Your task to perform on an android device: toggle data saver in the chrome app Image 0: 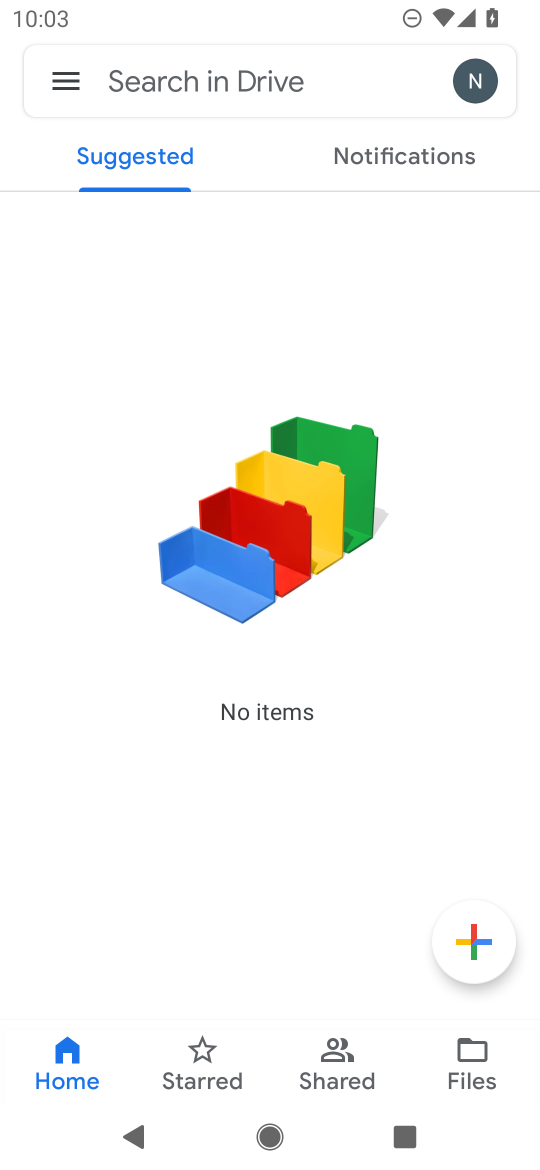
Step 0: press home button
Your task to perform on an android device: toggle data saver in the chrome app Image 1: 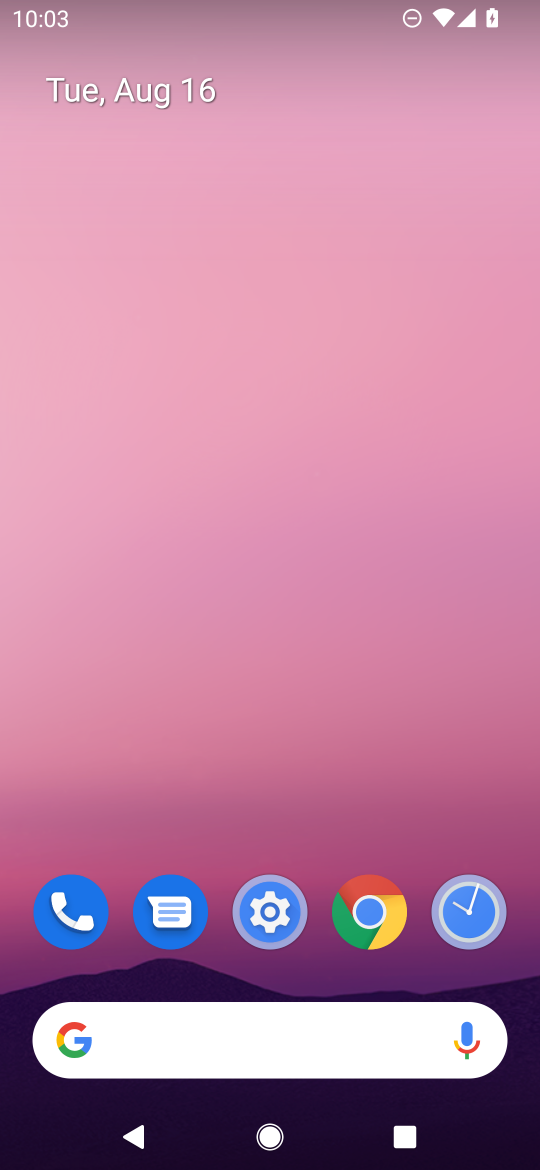
Step 1: click (390, 908)
Your task to perform on an android device: toggle data saver in the chrome app Image 2: 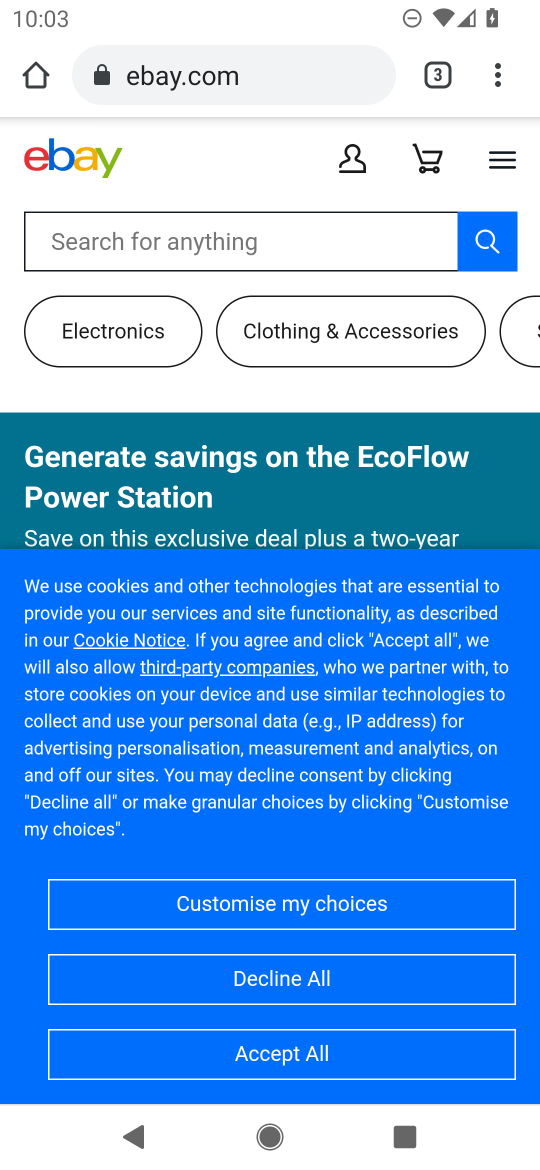
Step 2: click (506, 74)
Your task to perform on an android device: toggle data saver in the chrome app Image 3: 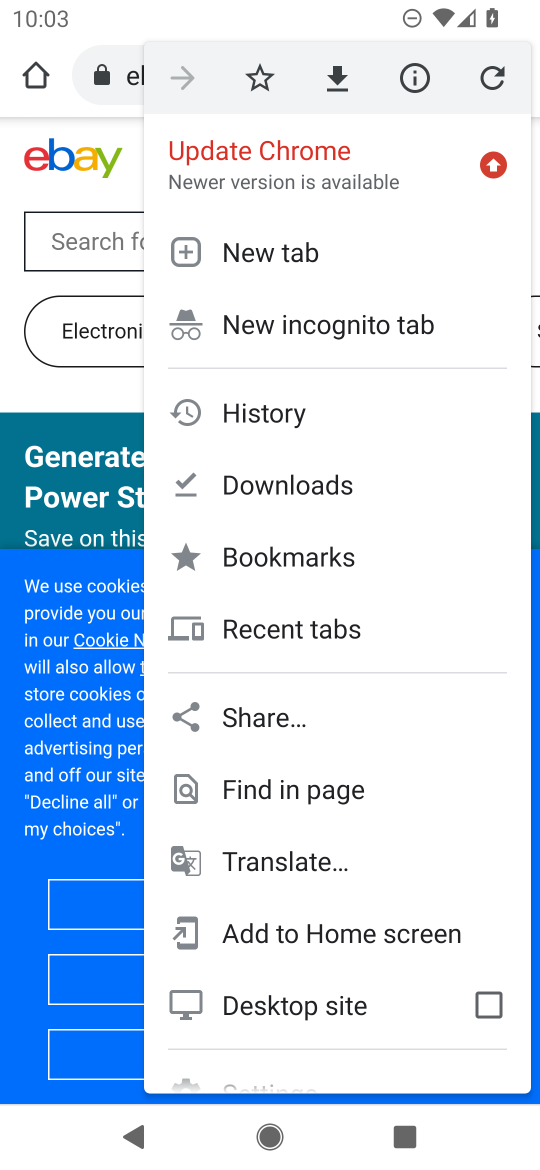
Step 3: drag from (334, 1032) to (314, 403)
Your task to perform on an android device: toggle data saver in the chrome app Image 4: 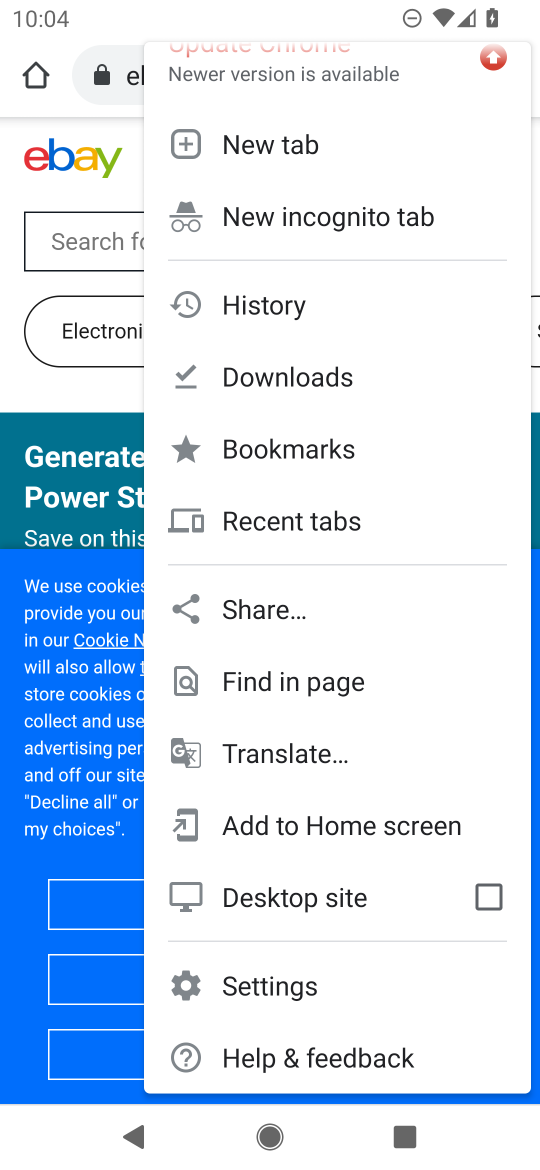
Step 4: click (244, 980)
Your task to perform on an android device: toggle data saver in the chrome app Image 5: 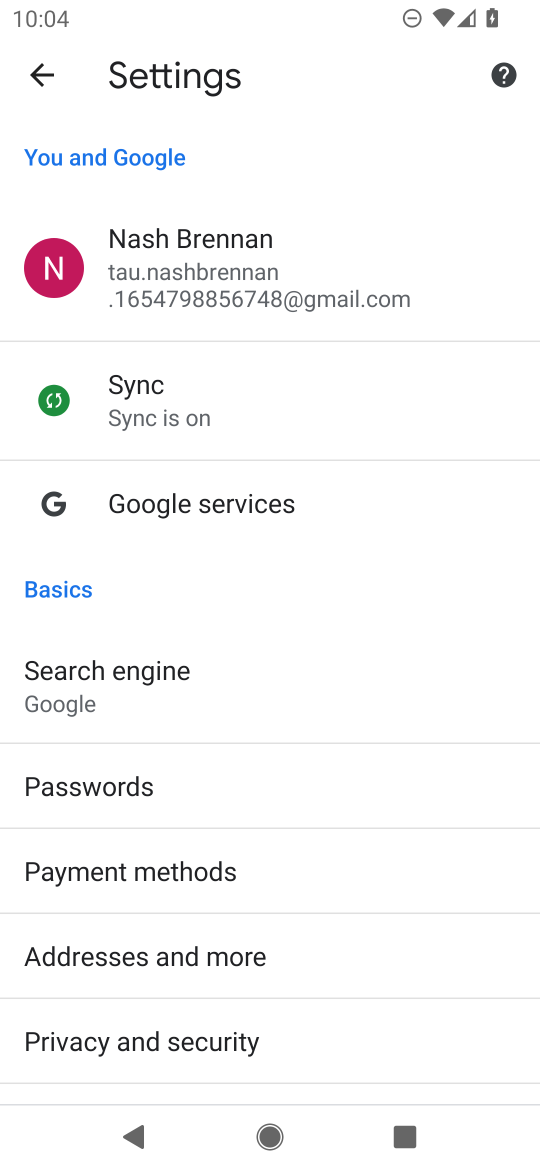
Step 5: drag from (86, 1061) to (103, 323)
Your task to perform on an android device: toggle data saver in the chrome app Image 6: 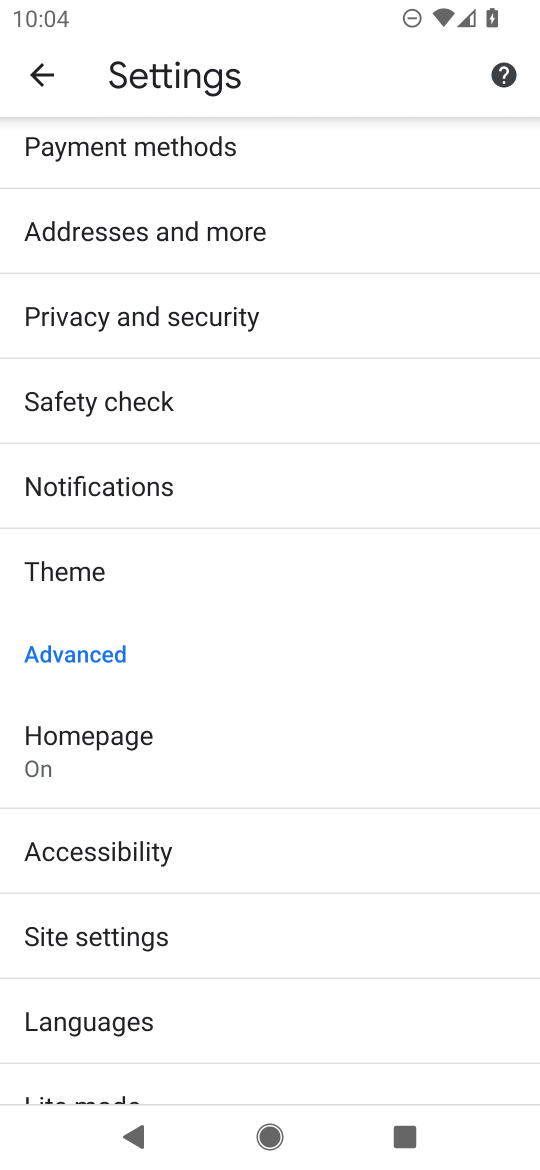
Step 6: drag from (223, 971) to (219, 69)
Your task to perform on an android device: toggle data saver in the chrome app Image 7: 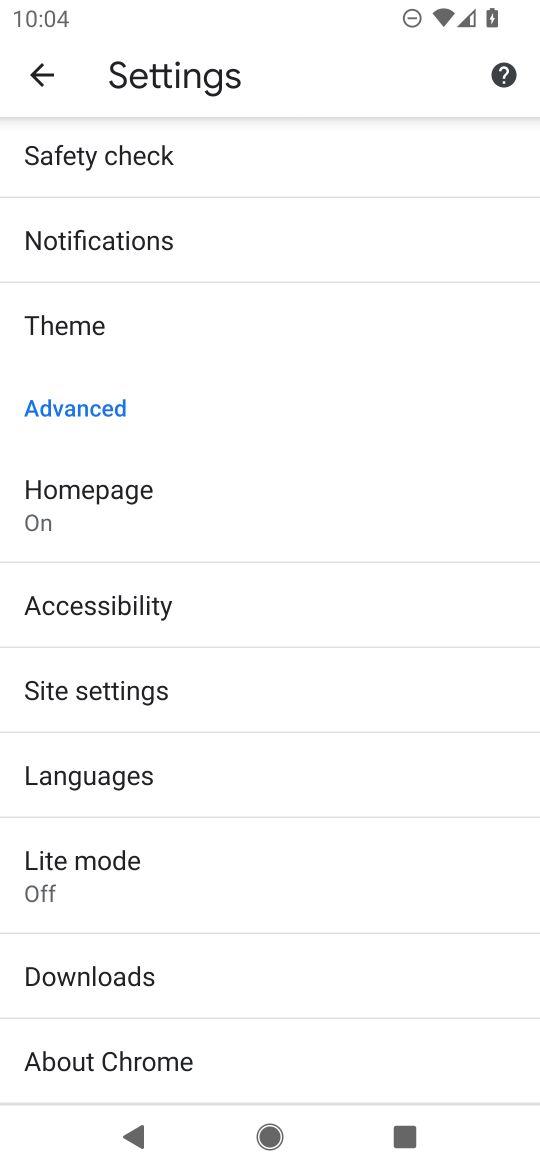
Step 7: click (162, 870)
Your task to perform on an android device: toggle data saver in the chrome app Image 8: 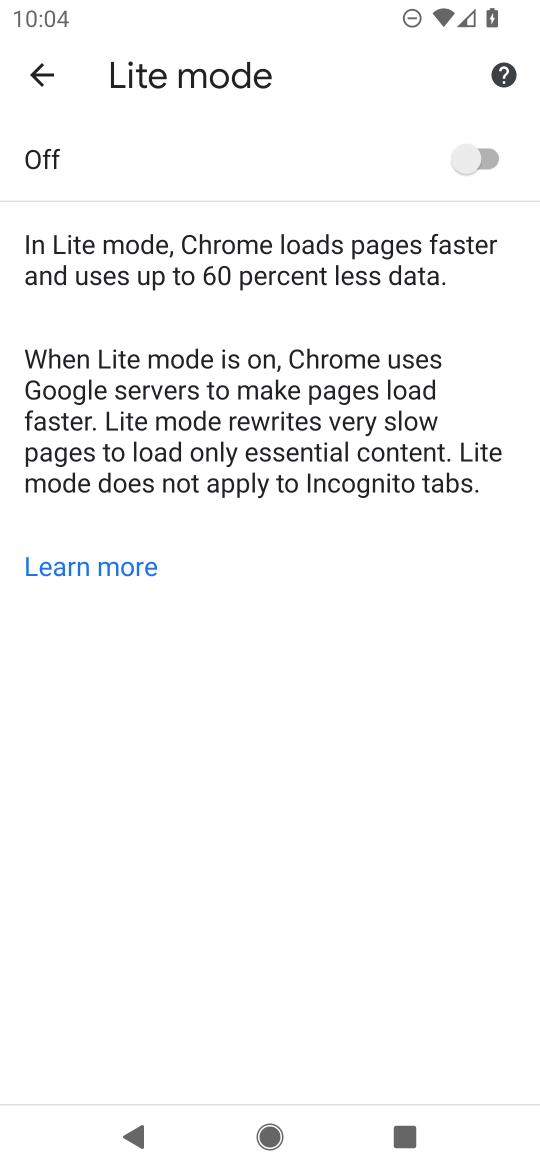
Step 8: click (495, 165)
Your task to perform on an android device: toggle data saver in the chrome app Image 9: 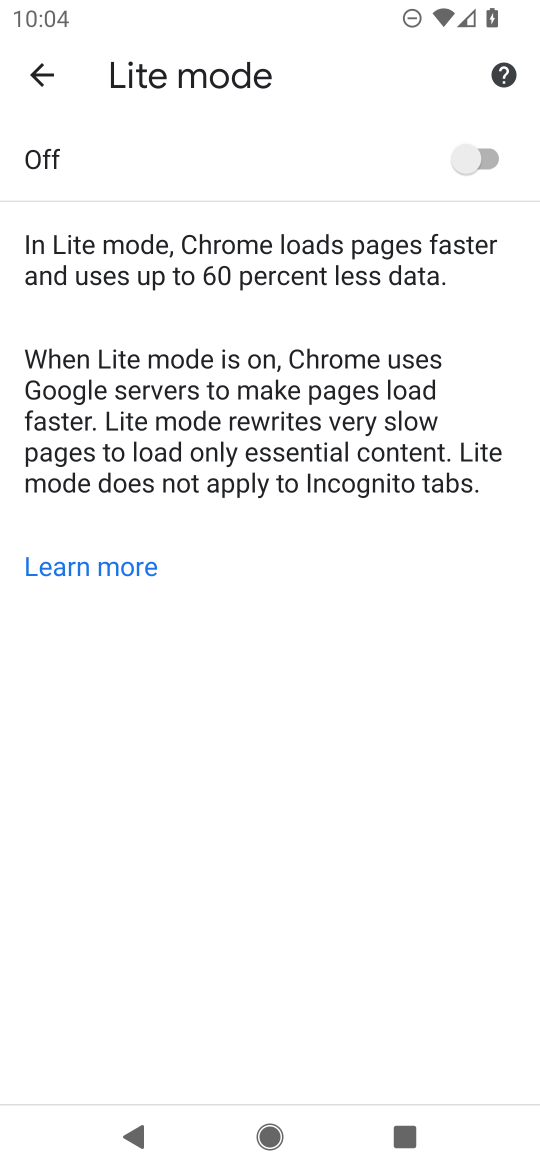
Step 9: click (495, 165)
Your task to perform on an android device: toggle data saver in the chrome app Image 10: 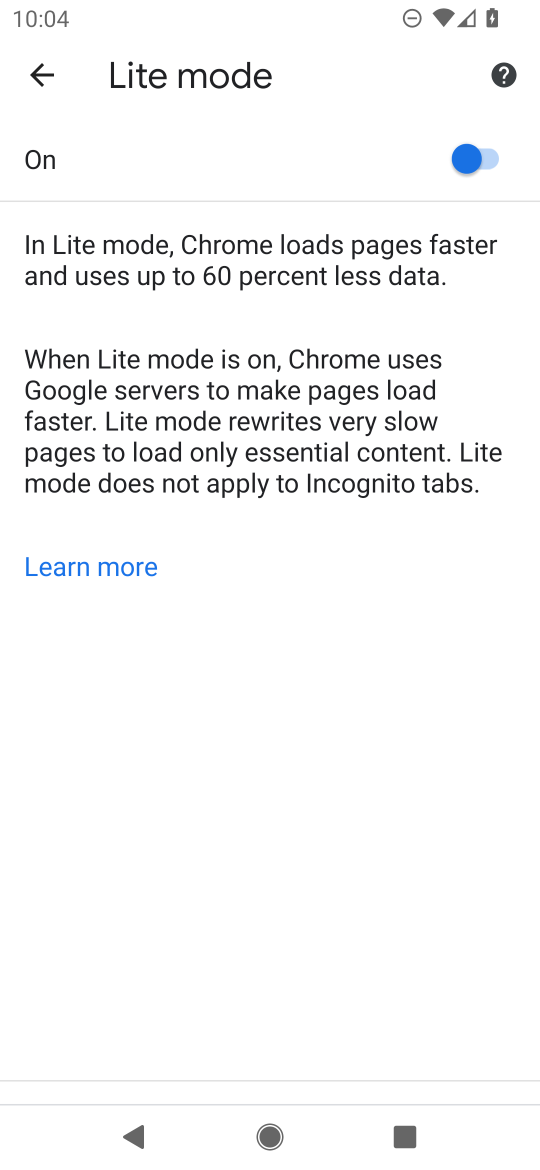
Step 10: click (495, 165)
Your task to perform on an android device: toggle data saver in the chrome app Image 11: 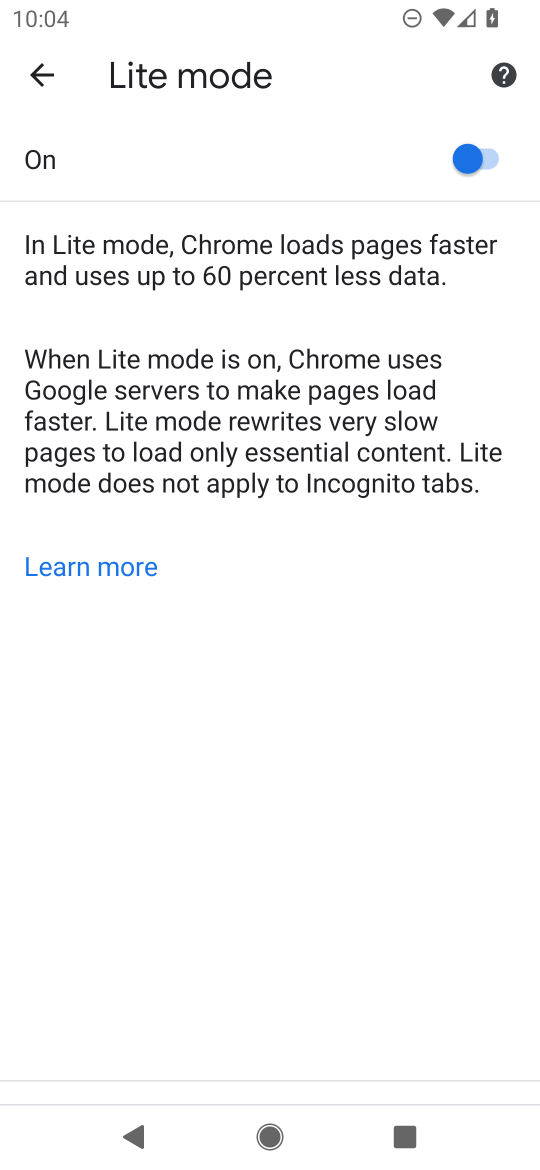
Step 11: click (495, 165)
Your task to perform on an android device: toggle data saver in the chrome app Image 12: 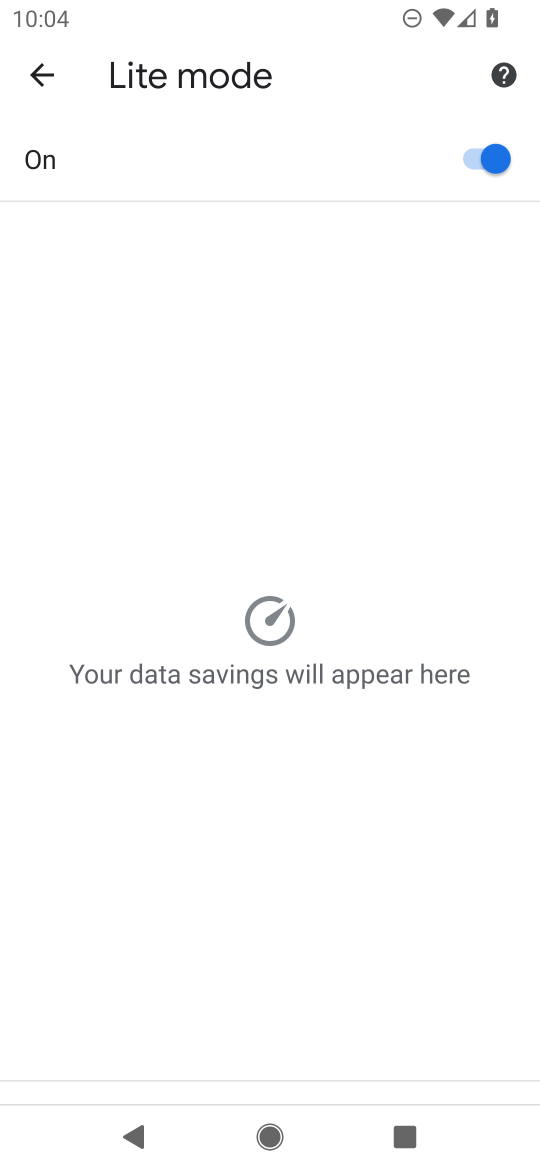
Step 12: click (495, 165)
Your task to perform on an android device: toggle data saver in the chrome app Image 13: 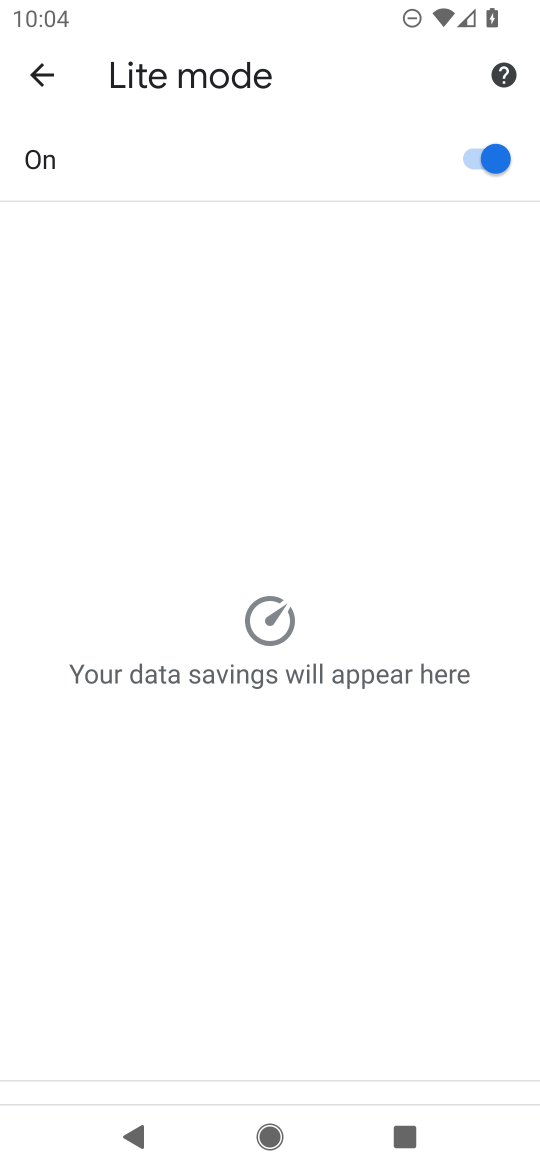
Step 13: click (495, 165)
Your task to perform on an android device: toggle data saver in the chrome app Image 14: 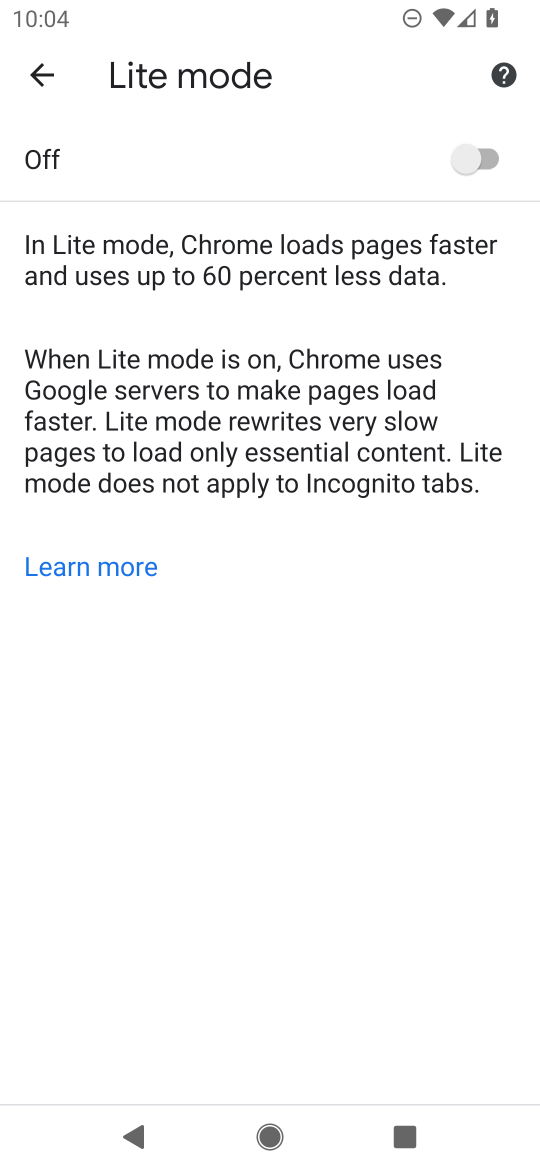
Step 14: task complete